Your task to perform on an android device: Search for vegetarian restaurants on Maps Image 0: 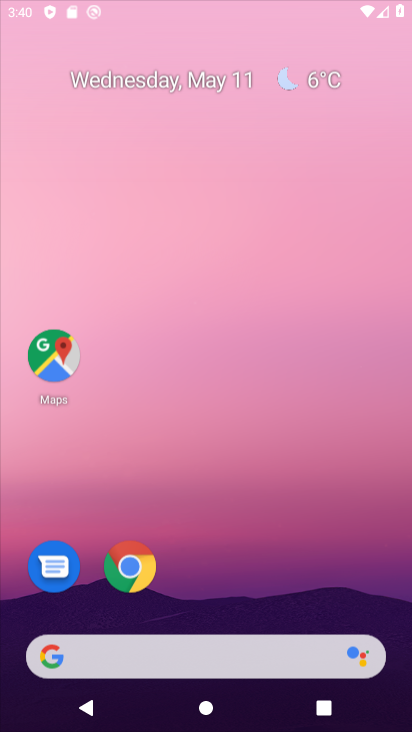
Step 0: drag from (275, 570) to (247, 324)
Your task to perform on an android device: Search for vegetarian restaurants on Maps Image 1: 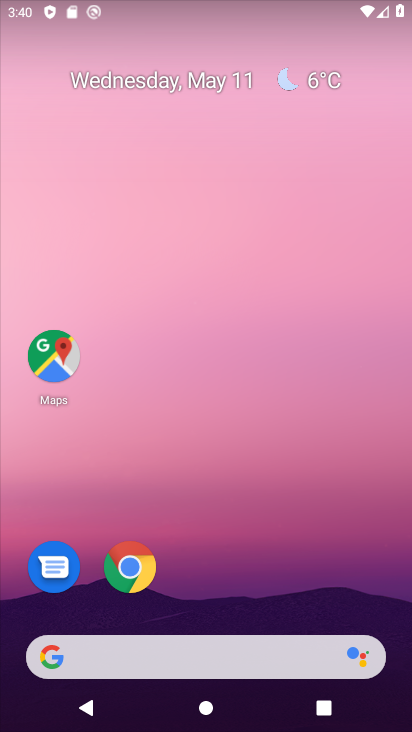
Step 1: drag from (235, 633) to (240, 296)
Your task to perform on an android device: Search for vegetarian restaurants on Maps Image 2: 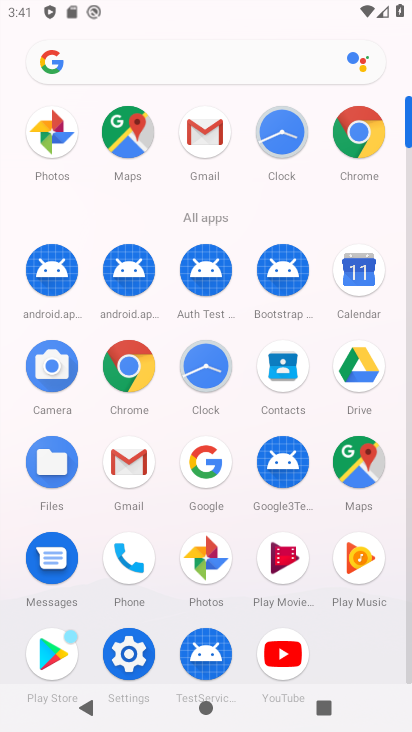
Step 2: click (352, 461)
Your task to perform on an android device: Search for vegetarian restaurants on Maps Image 3: 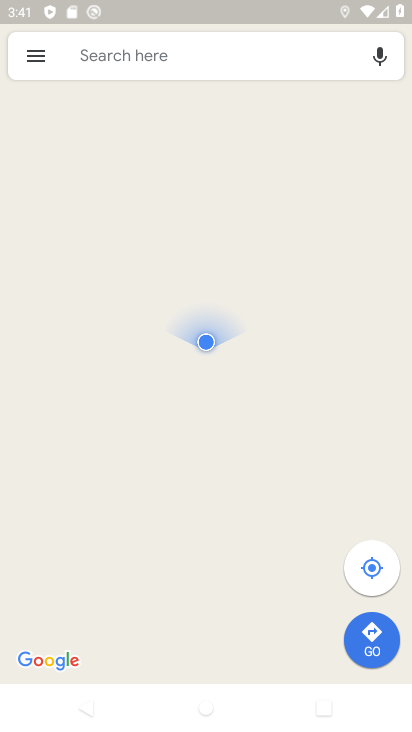
Step 3: click (138, 57)
Your task to perform on an android device: Search for vegetarian restaurants on Maps Image 4: 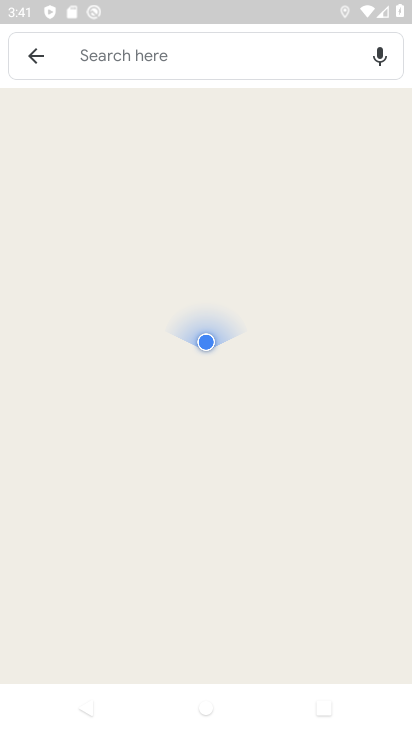
Step 4: click (131, 59)
Your task to perform on an android device: Search for vegetarian restaurants on Maps Image 5: 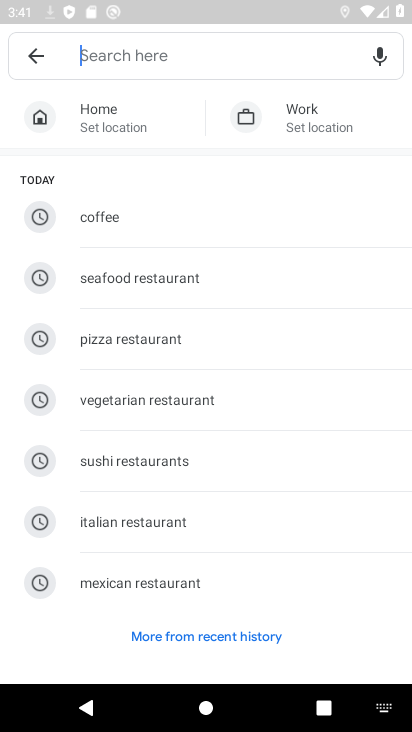
Step 5: click (162, 393)
Your task to perform on an android device: Search for vegetarian restaurants on Maps Image 6: 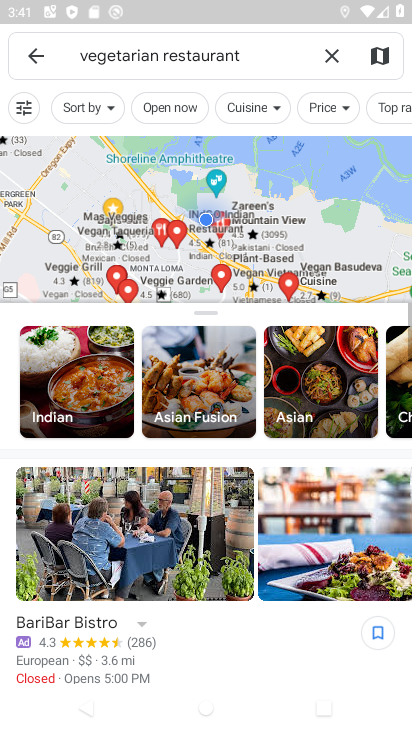
Step 6: task complete